Your task to perform on an android device: What is the capital of China? Image 0: 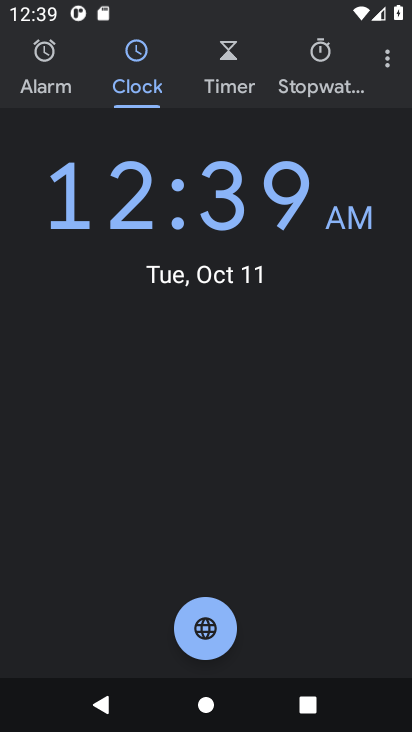
Step 0: press home button
Your task to perform on an android device: What is the capital of China? Image 1: 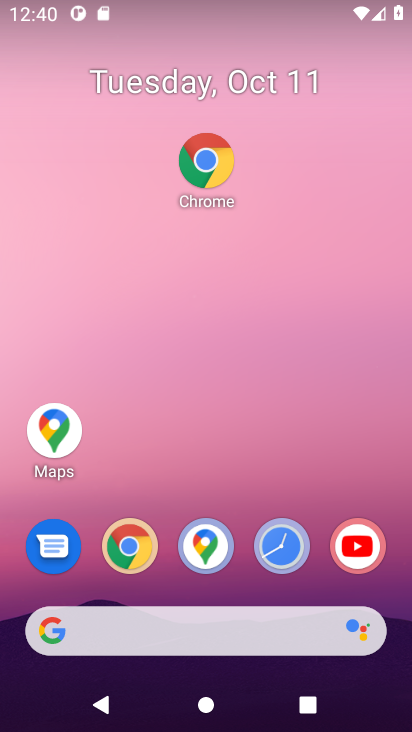
Step 1: click (130, 541)
Your task to perform on an android device: What is the capital of China? Image 2: 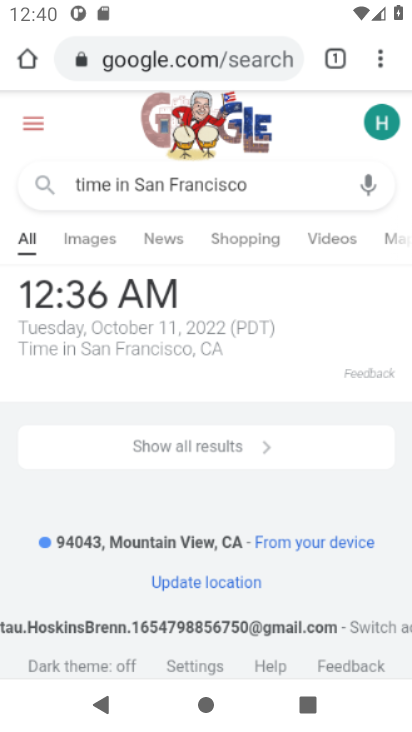
Step 2: click (210, 66)
Your task to perform on an android device: What is the capital of China? Image 3: 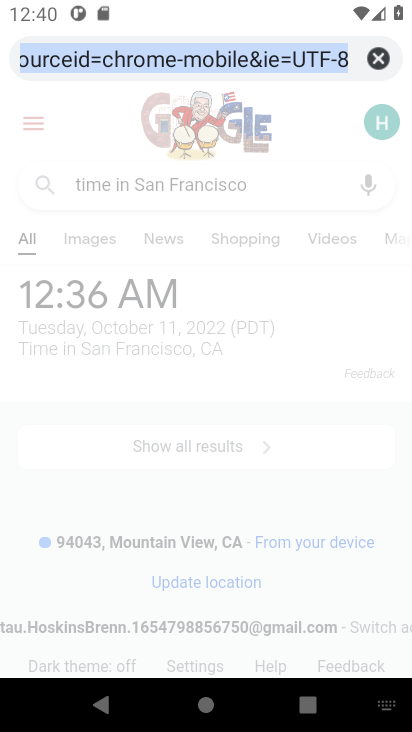
Step 3: type "capital of China"
Your task to perform on an android device: What is the capital of China? Image 4: 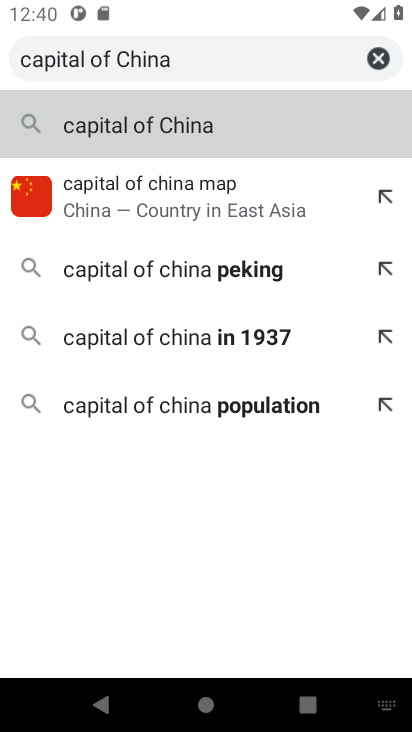
Step 4: press enter
Your task to perform on an android device: What is the capital of China? Image 5: 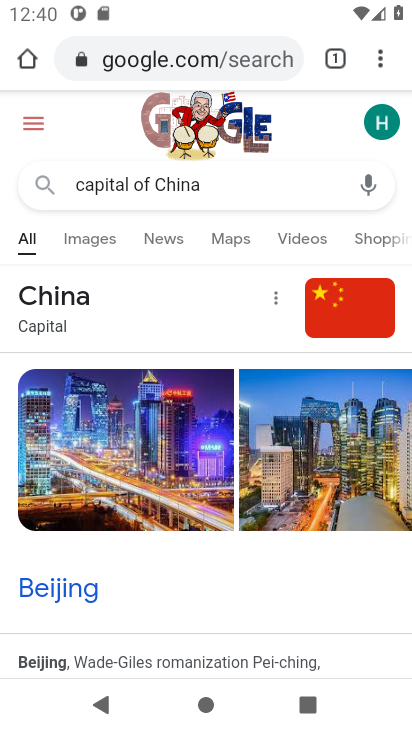
Step 5: task complete